Your task to perform on an android device: Open Wikipedia Image 0: 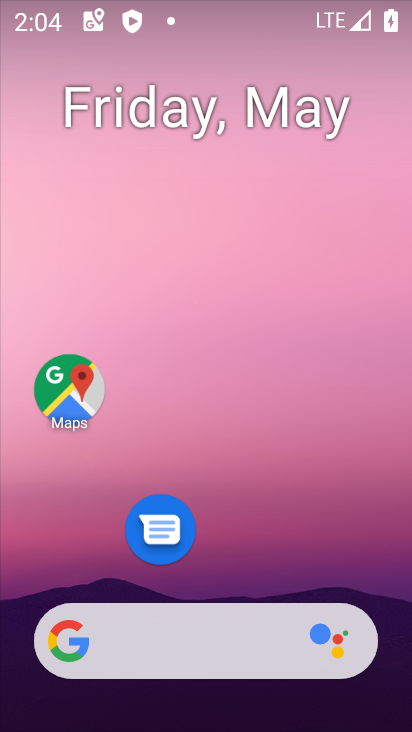
Step 0: drag from (205, 583) to (267, 41)
Your task to perform on an android device: Open Wikipedia Image 1: 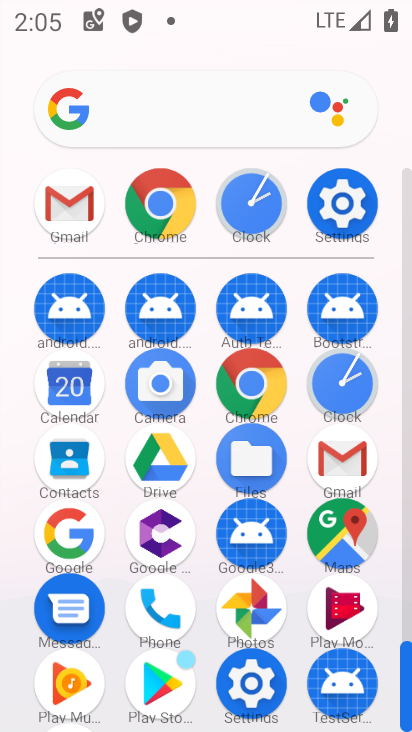
Step 1: click (148, 212)
Your task to perform on an android device: Open Wikipedia Image 2: 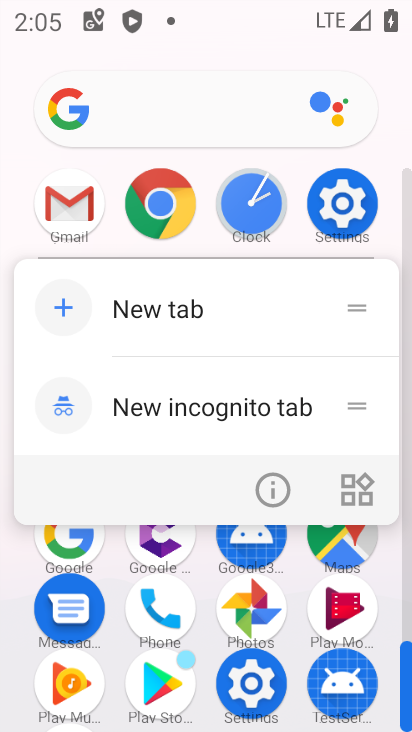
Step 2: click (281, 497)
Your task to perform on an android device: Open Wikipedia Image 3: 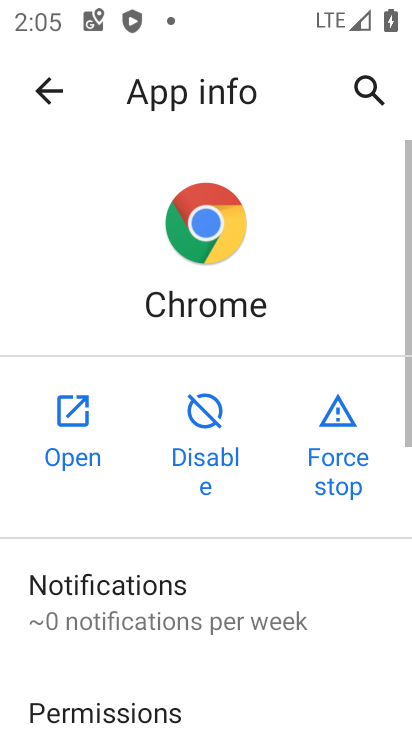
Step 3: click (73, 400)
Your task to perform on an android device: Open Wikipedia Image 4: 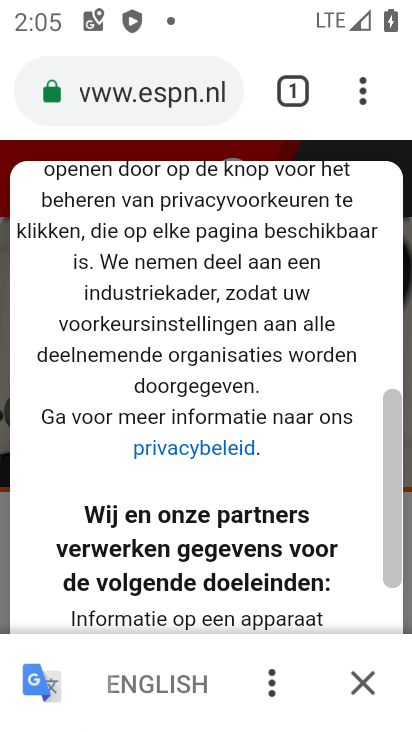
Step 4: click (156, 84)
Your task to perform on an android device: Open Wikipedia Image 5: 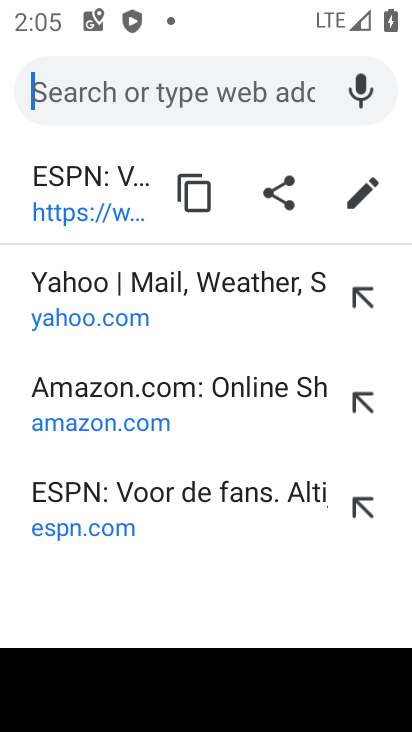
Step 5: type "wikipedia.com"
Your task to perform on an android device: Open Wikipedia Image 6: 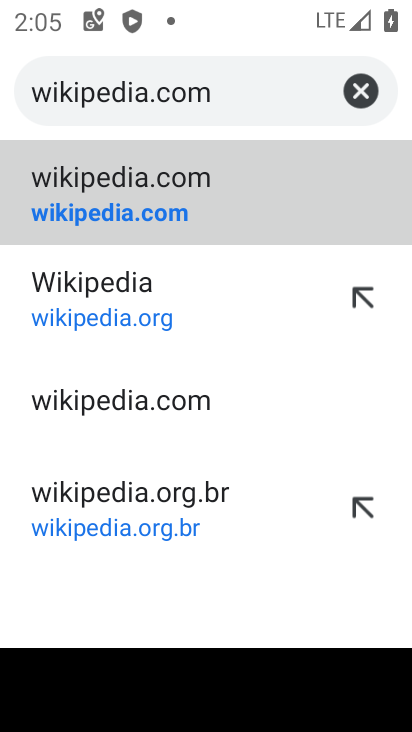
Step 6: click (138, 189)
Your task to perform on an android device: Open Wikipedia Image 7: 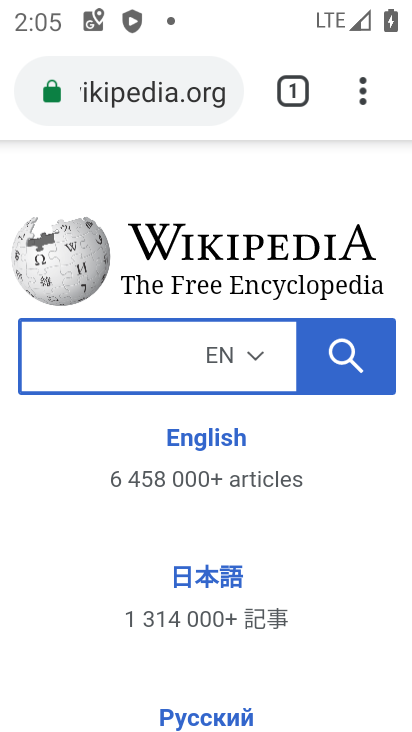
Step 7: task complete